Your task to perform on an android device: toggle wifi Image 0: 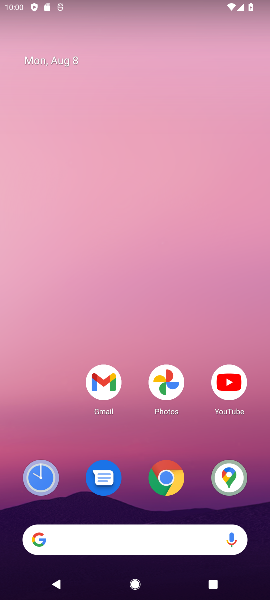
Step 0: drag from (157, 513) to (132, 81)
Your task to perform on an android device: toggle wifi Image 1: 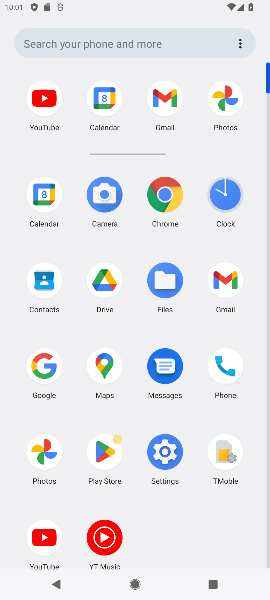
Step 1: click (164, 453)
Your task to perform on an android device: toggle wifi Image 2: 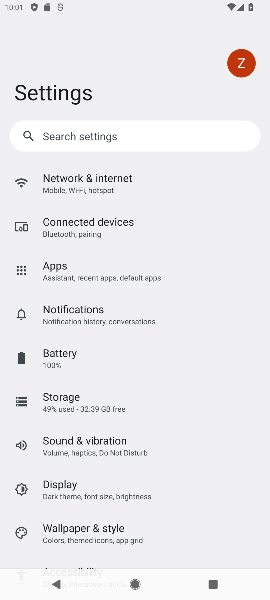
Step 2: click (131, 180)
Your task to perform on an android device: toggle wifi Image 3: 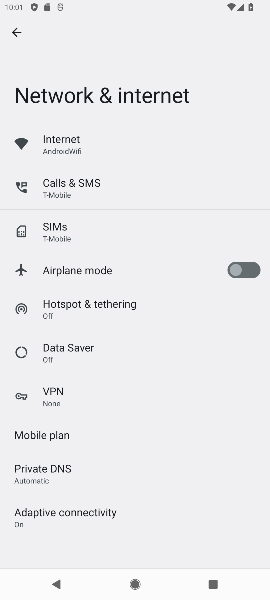
Step 3: click (92, 144)
Your task to perform on an android device: toggle wifi Image 4: 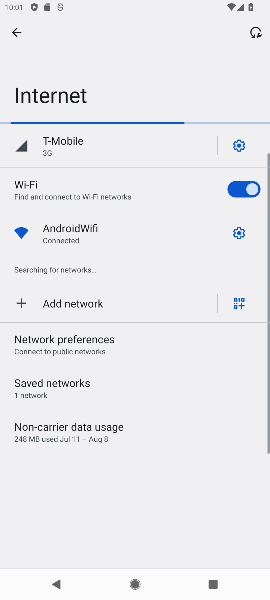
Step 4: task complete